Your task to perform on an android device: Go to notification settings Image 0: 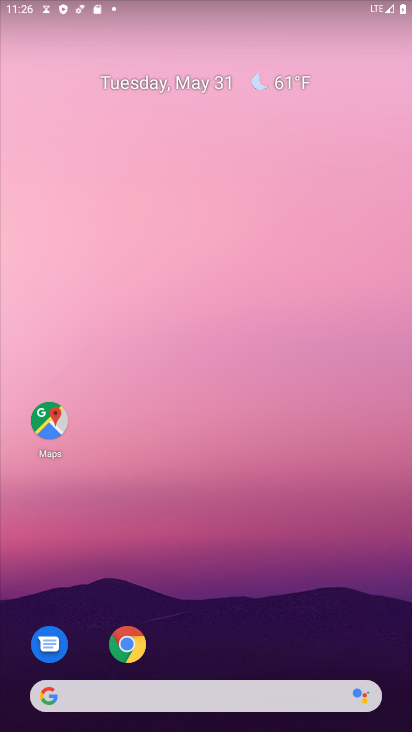
Step 0: drag from (175, 647) to (261, 168)
Your task to perform on an android device: Go to notification settings Image 1: 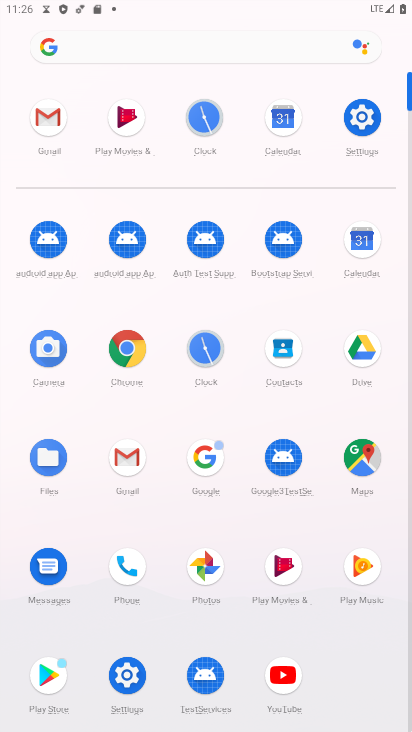
Step 1: click (369, 120)
Your task to perform on an android device: Go to notification settings Image 2: 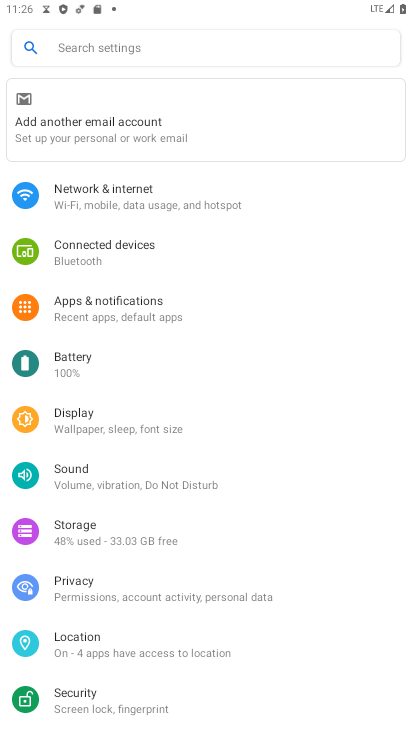
Step 2: click (88, 313)
Your task to perform on an android device: Go to notification settings Image 3: 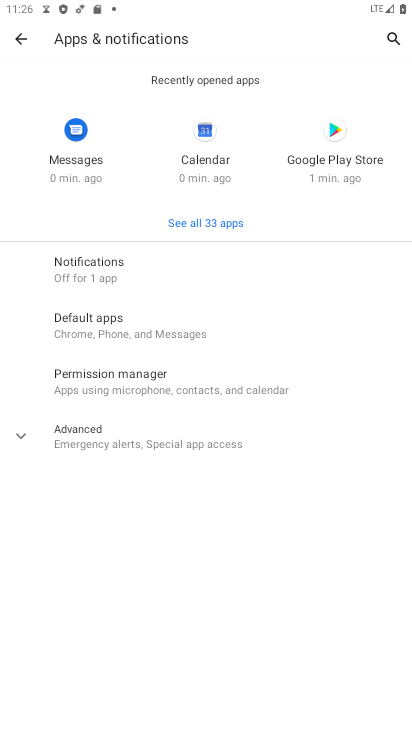
Step 3: task complete